Your task to perform on an android device: Go to eBay Image 0: 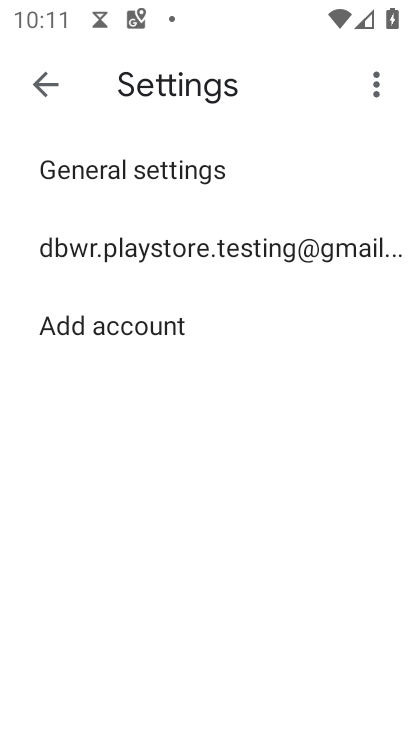
Step 0: press home button
Your task to perform on an android device: Go to eBay Image 1: 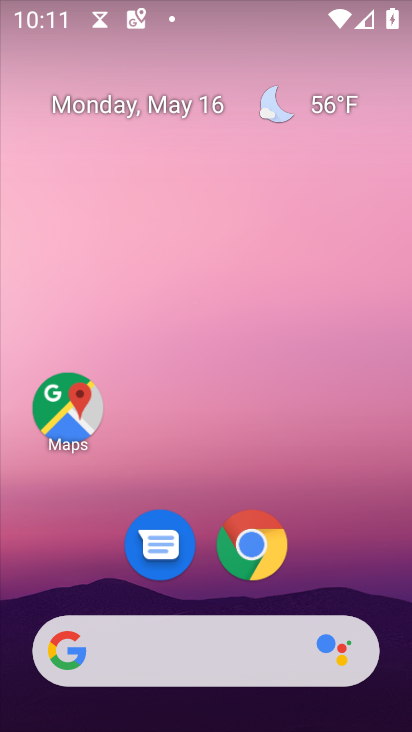
Step 1: click (248, 571)
Your task to perform on an android device: Go to eBay Image 2: 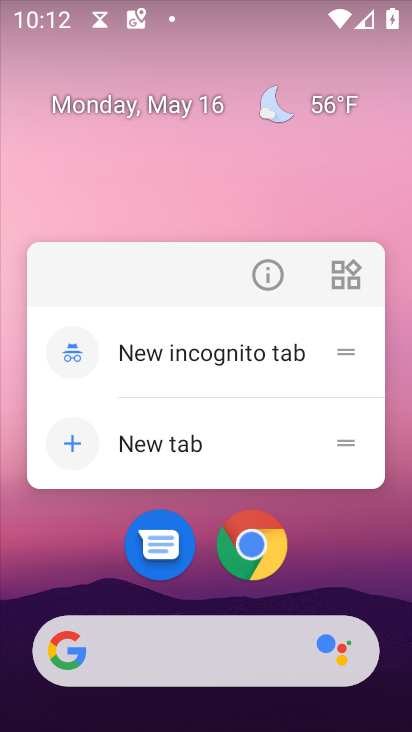
Step 2: click (242, 555)
Your task to perform on an android device: Go to eBay Image 3: 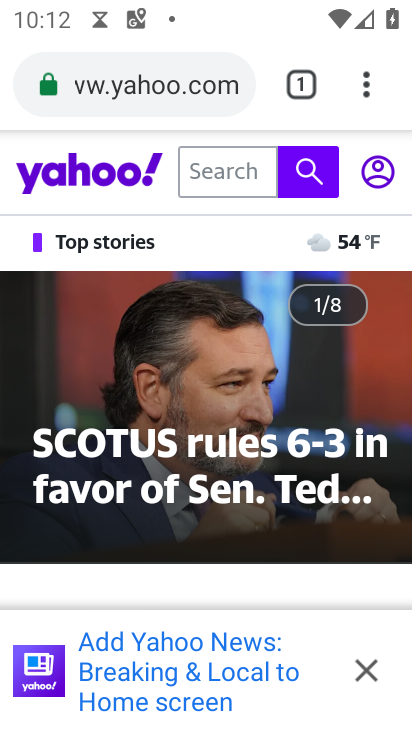
Step 3: click (137, 84)
Your task to perform on an android device: Go to eBay Image 4: 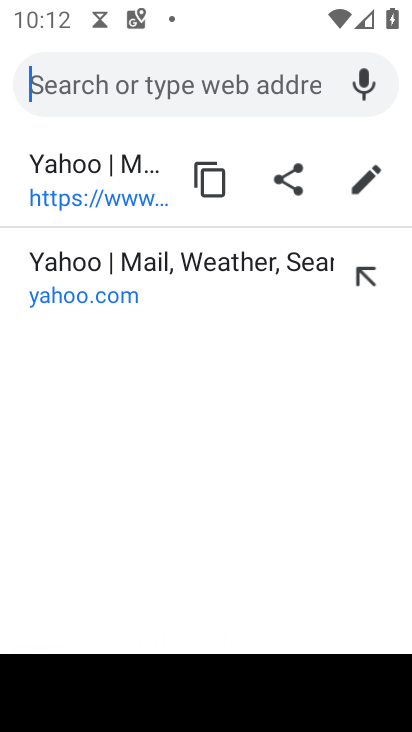
Step 4: type "ebay"
Your task to perform on an android device: Go to eBay Image 5: 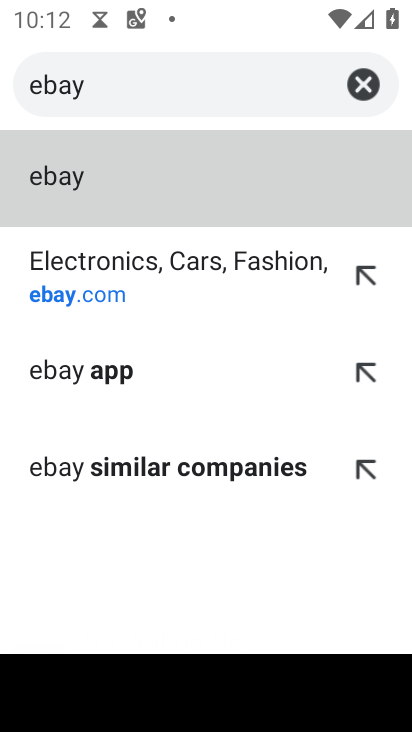
Step 5: click (62, 183)
Your task to perform on an android device: Go to eBay Image 6: 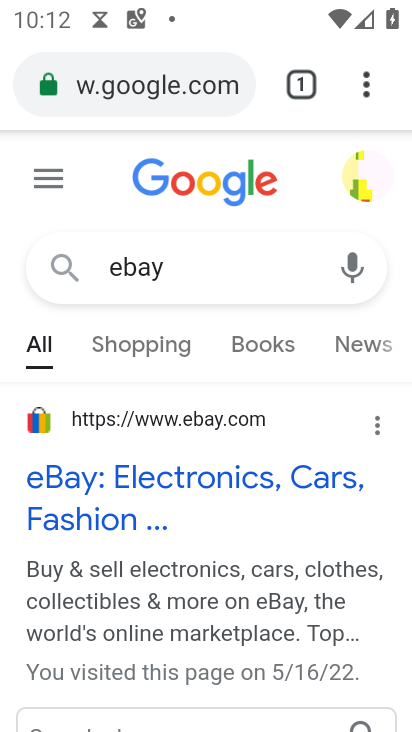
Step 6: click (137, 482)
Your task to perform on an android device: Go to eBay Image 7: 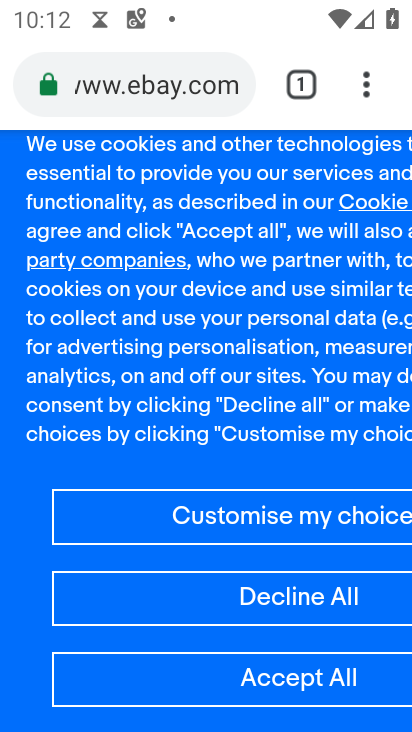
Step 7: task complete